Your task to perform on an android device: Open notification settings Image 0: 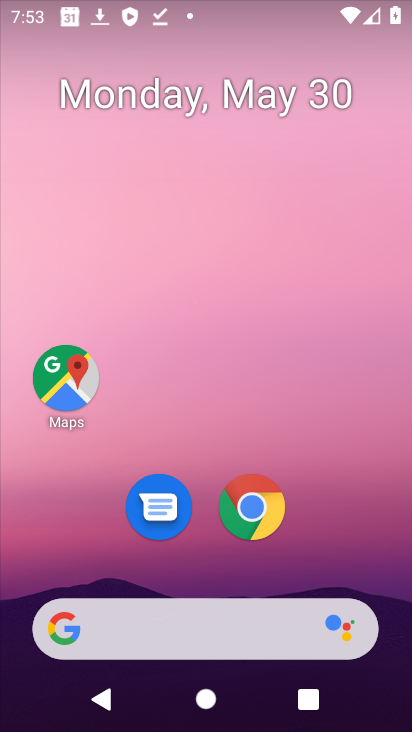
Step 0: drag from (346, 461) to (263, 120)
Your task to perform on an android device: Open notification settings Image 1: 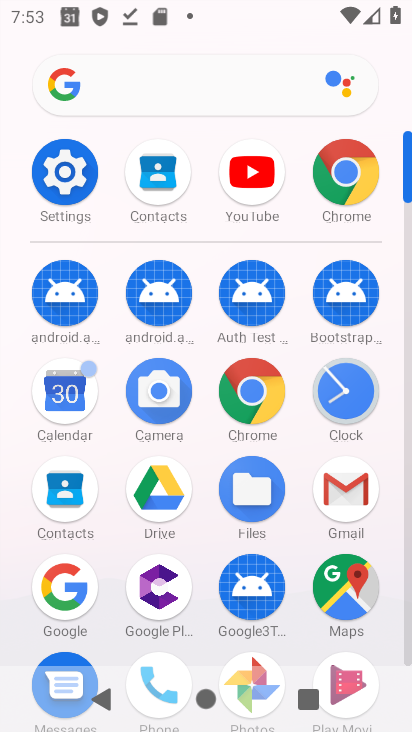
Step 1: click (45, 195)
Your task to perform on an android device: Open notification settings Image 2: 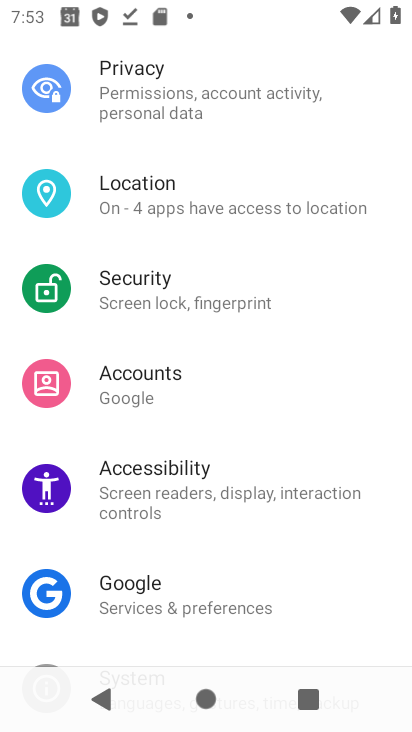
Step 2: drag from (258, 309) to (269, 531)
Your task to perform on an android device: Open notification settings Image 3: 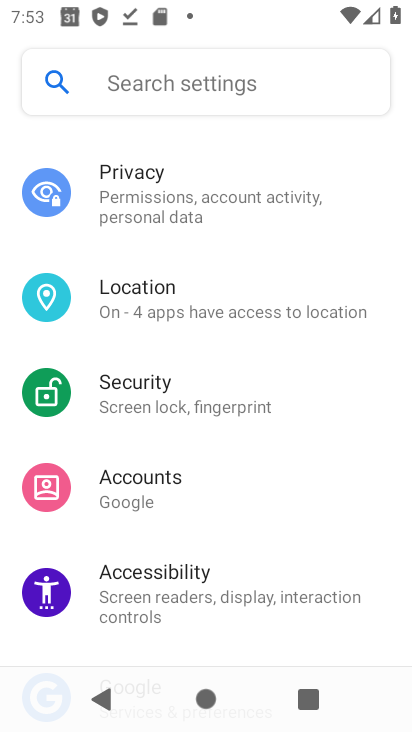
Step 3: drag from (209, 292) to (221, 619)
Your task to perform on an android device: Open notification settings Image 4: 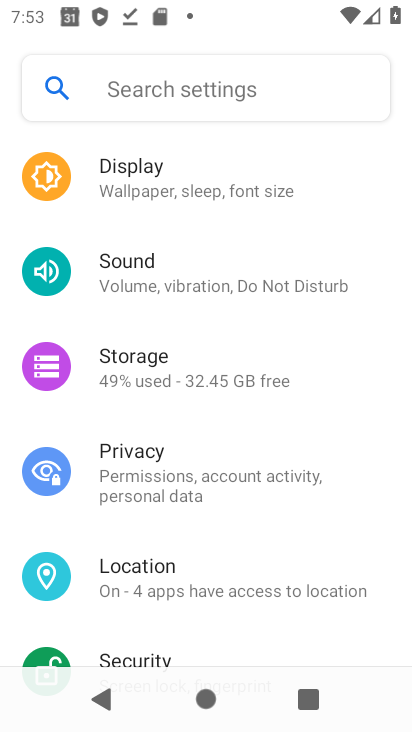
Step 4: drag from (220, 292) to (230, 544)
Your task to perform on an android device: Open notification settings Image 5: 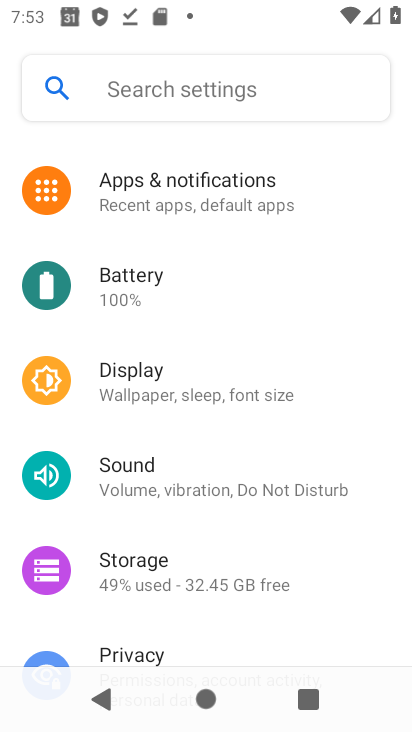
Step 5: click (275, 191)
Your task to perform on an android device: Open notification settings Image 6: 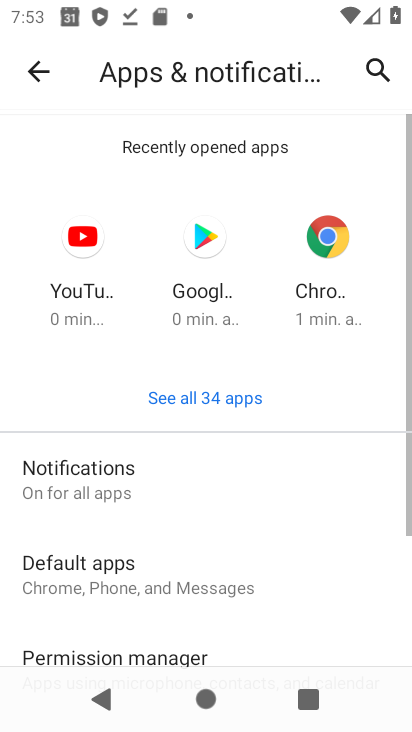
Step 6: click (157, 482)
Your task to perform on an android device: Open notification settings Image 7: 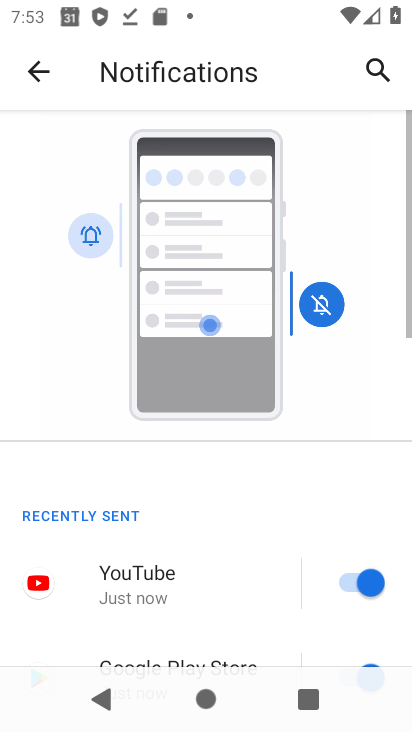
Step 7: task complete